Your task to perform on an android device: turn on the 24-hour format for clock Image 0: 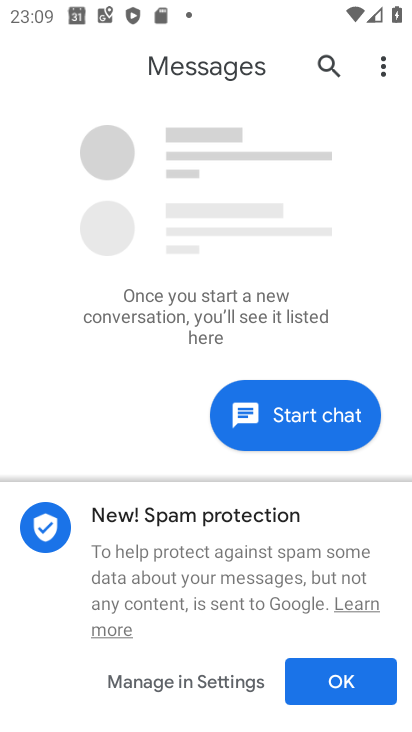
Step 0: press home button
Your task to perform on an android device: turn on the 24-hour format for clock Image 1: 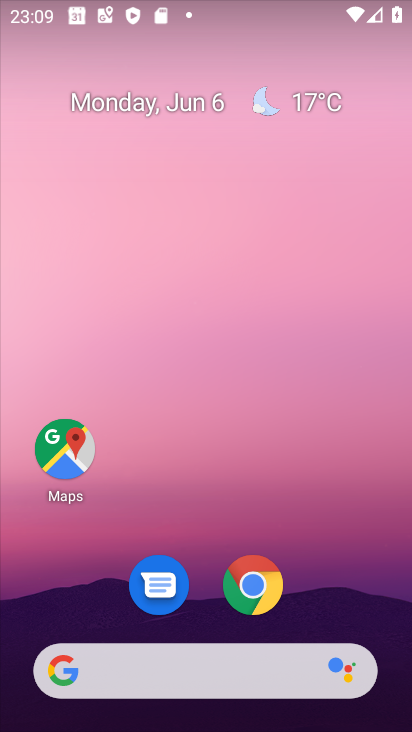
Step 1: drag from (310, 462) to (309, 42)
Your task to perform on an android device: turn on the 24-hour format for clock Image 2: 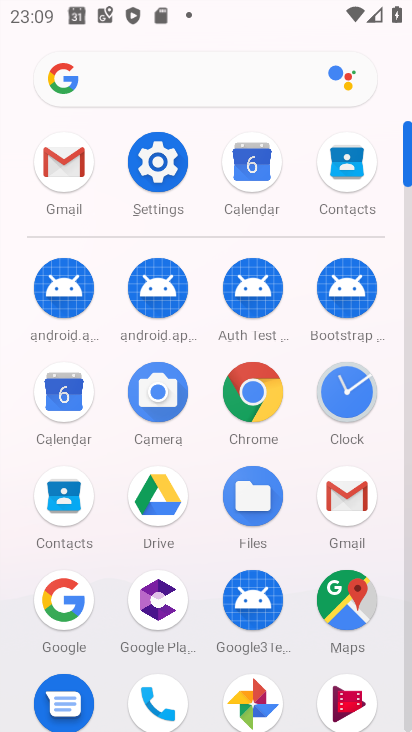
Step 2: click (350, 374)
Your task to perform on an android device: turn on the 24-hour format for clock Image 3: 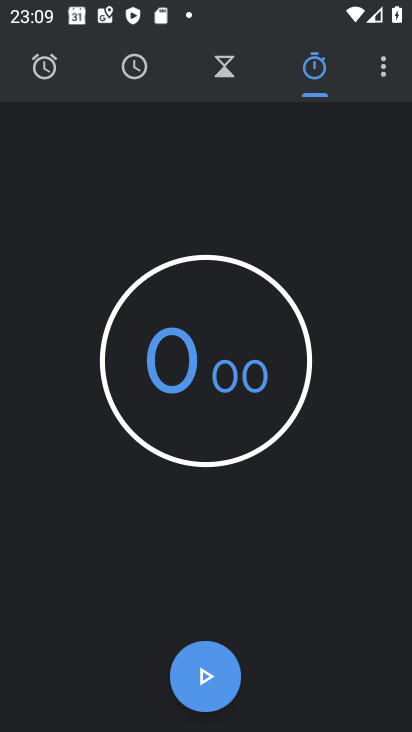
Step 3: click (383, 79)
Your task to perform on an android device: turn on the 24-hour format for clock Image 4: 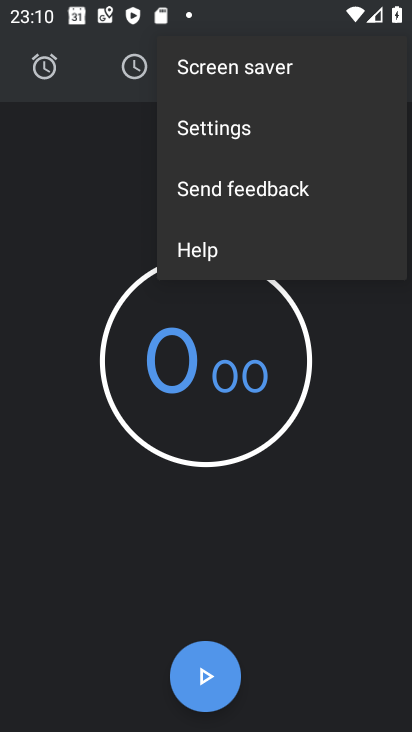
Step 4: click (288, 127)
Your task to perform on an android device: turn on the 24-hour format for clock Image 5: 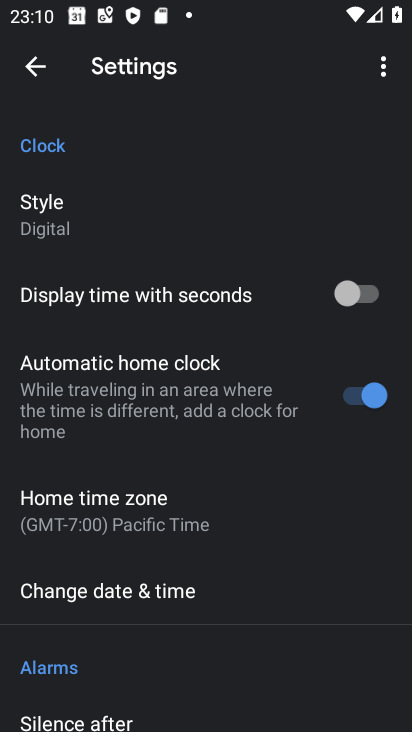
Step 5: drag from (276, 461) to (259, 202)
Your task to perform on an android device: turn on the 24-hour format for clock Image 6: 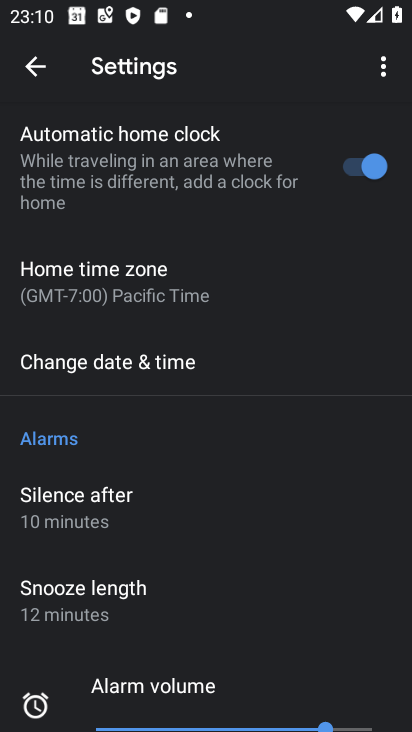
Step 6: click (254, 365)
Your task to perform on an android device: turn on the 24-hour format for clock Image 7: 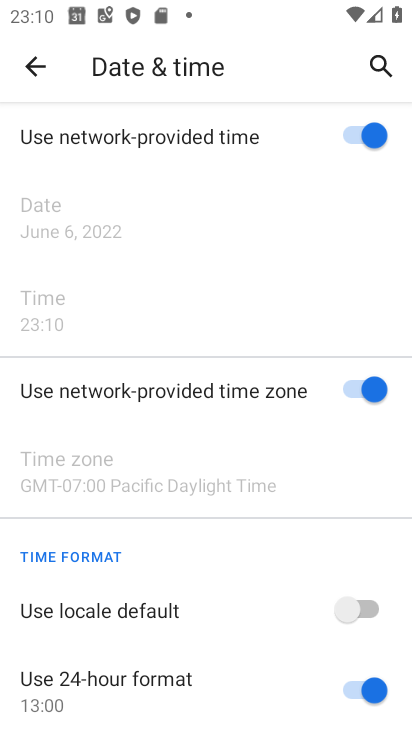
Step 7: task complete